Your task to perform on an android device: Go to CNN.com Image 0: 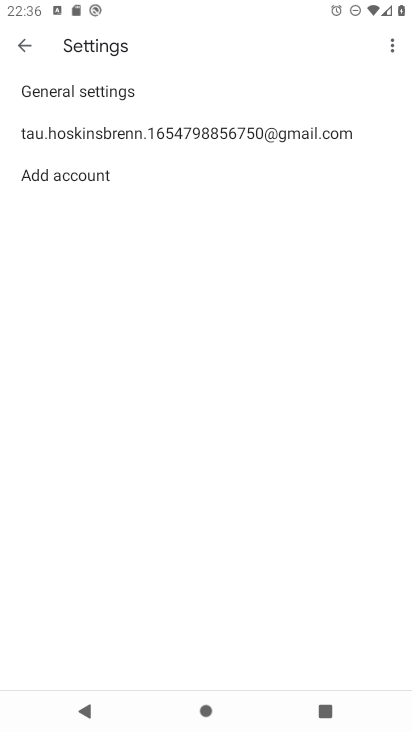
Step 0: press home button
Your task to perform on an android device: Go to CNN.com Image 1: 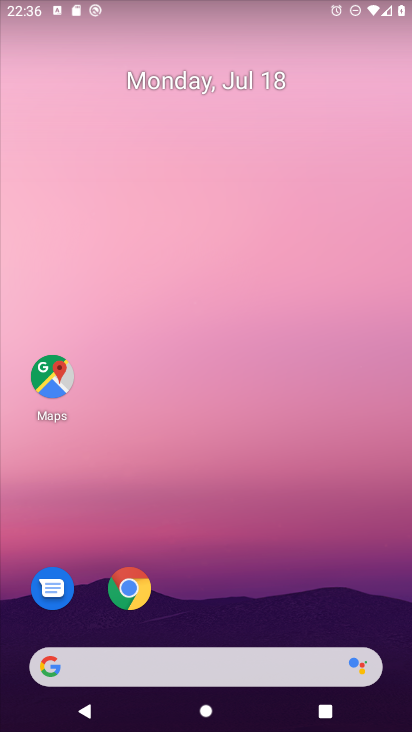
Step 1: click (128, 591)
Your task to perform on an android device: Go to CNN.com Image 2: 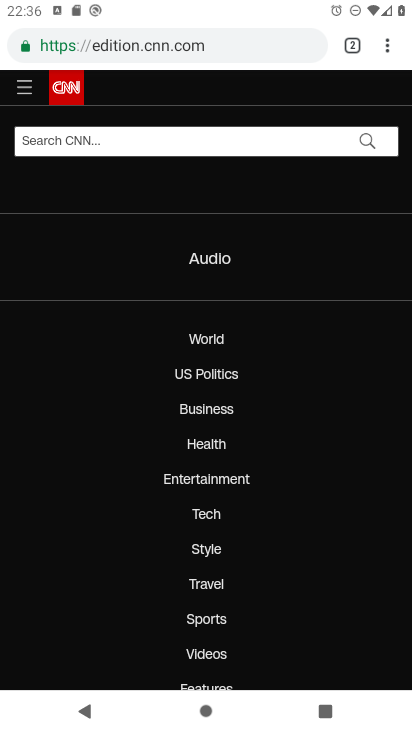
Step 2: task complete